Your task to perform on an android device: When is my next meeting? Image 0: 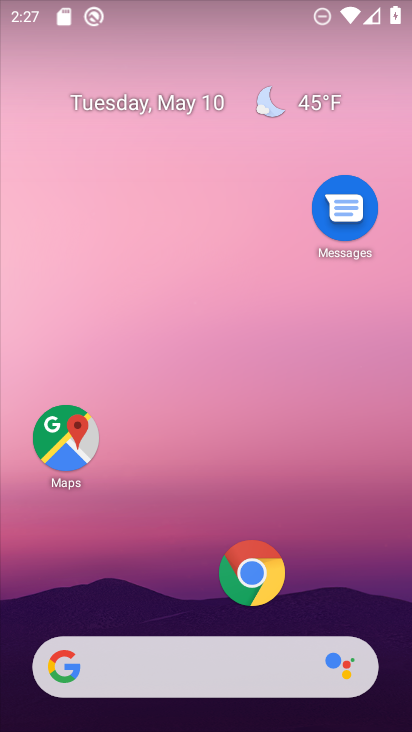
Step 0: drag from (210, 625) to (212, 314)
Your task to perform on an android device: When is my next meeting? Image 1: 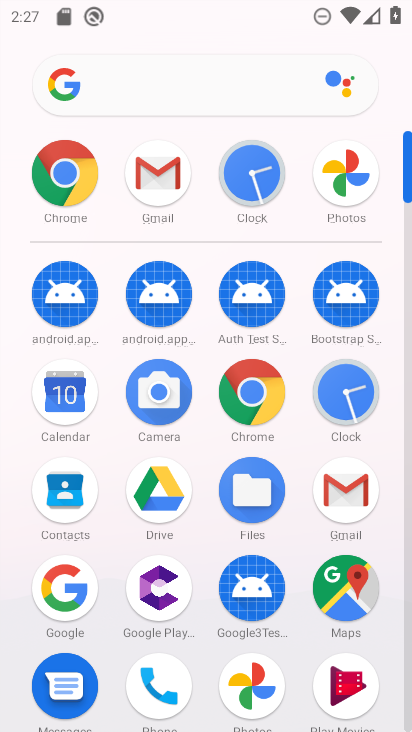
Step 1: click (67, 389)
Your task to perform on an android device: When is my next meeting? Image 2: 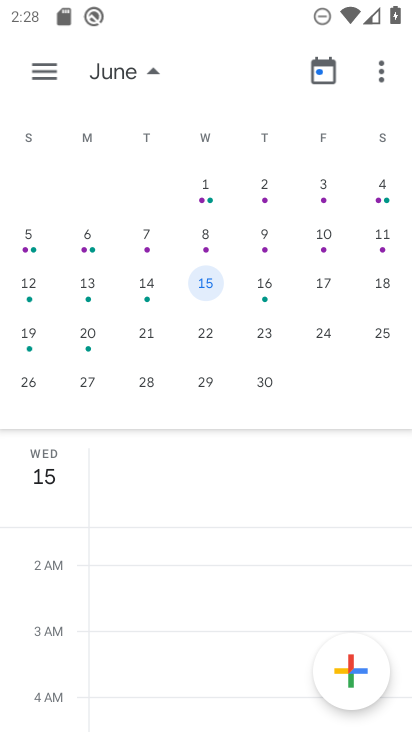
Step 2: click (197, 294)
Your task to perform on an android device: When is my next meeting? Image 3: 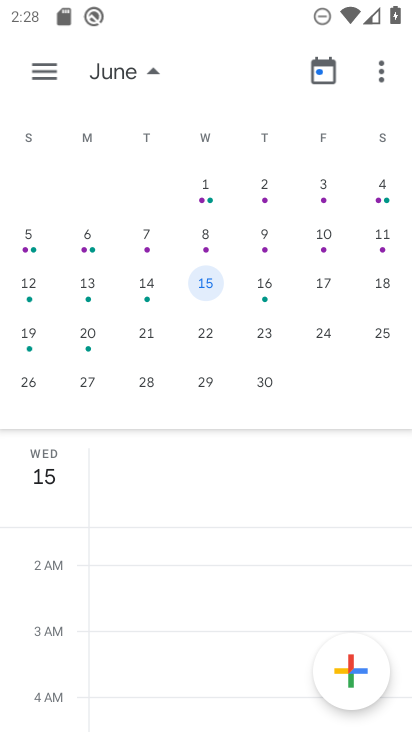
Step 3: drag from (28, 242) to (412, 316)
Your task to perform on an android device: When is my next meeting? Image 4: 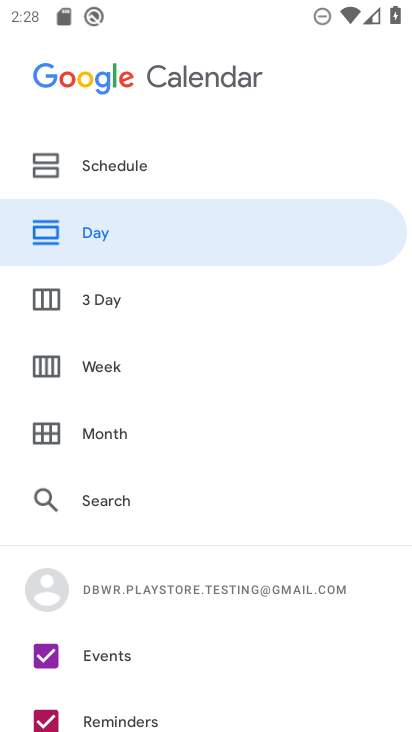
Step 4: press back button
Your task to perform on an android device: When is my next meeting? Image 5: 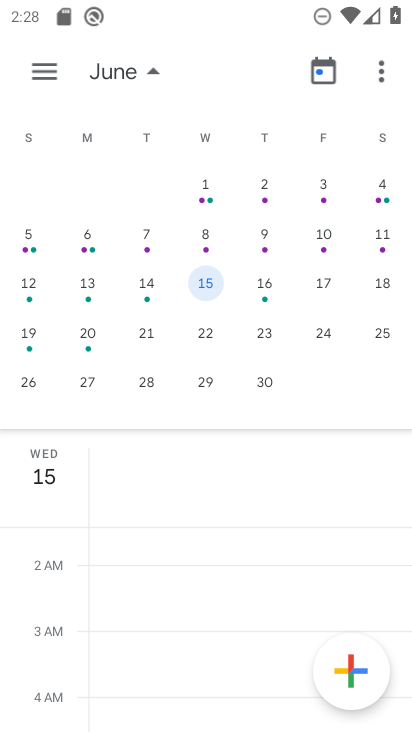
Step 5: drag from (65, 295) to (411, 277)
Your task to perform on an android device: When is my next meeting? Image 6: 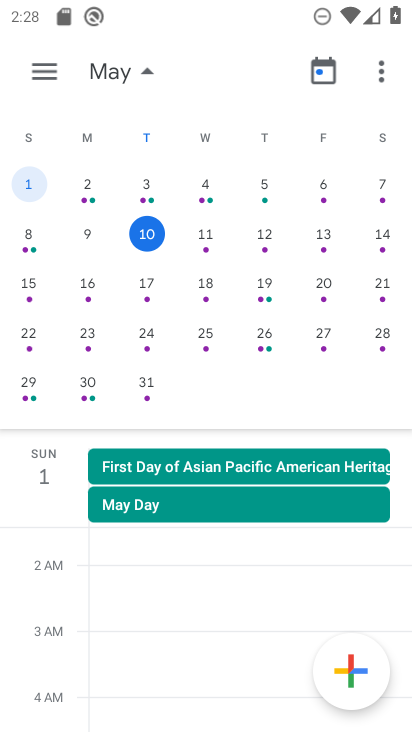
Step 6: click (157, 236)
Your task to perform on an android device: When is my next meeting? Image 7: 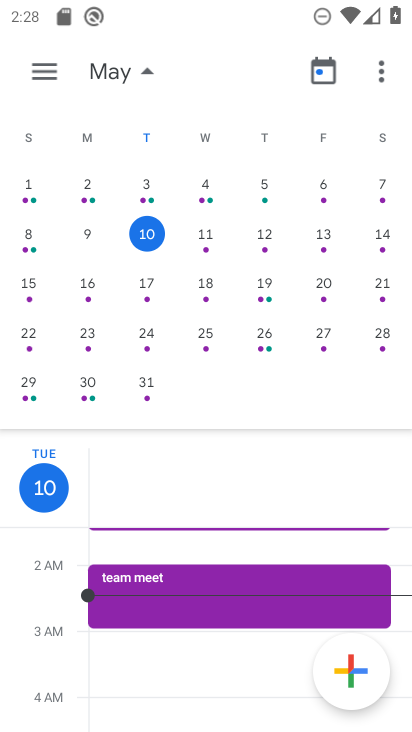
Step 7: drag from (208, 640) to (344, 327)
Your task to perform on an android device: When is my next meeting? Image 8: 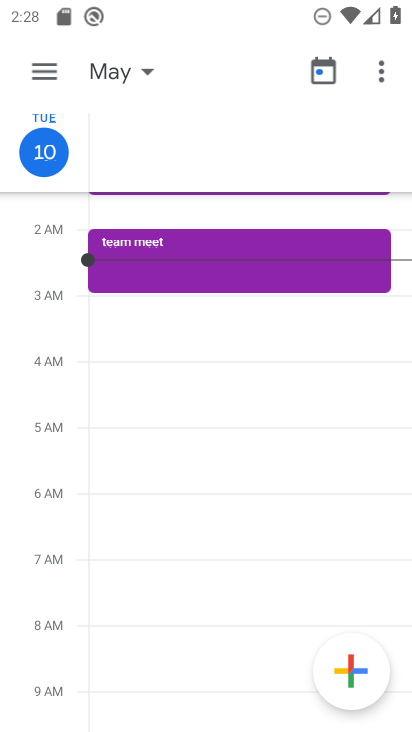
Step 8: drag from (158, 517) to (240, 323)
Your task to perform on an android device: When is my next meeting? Image 9: 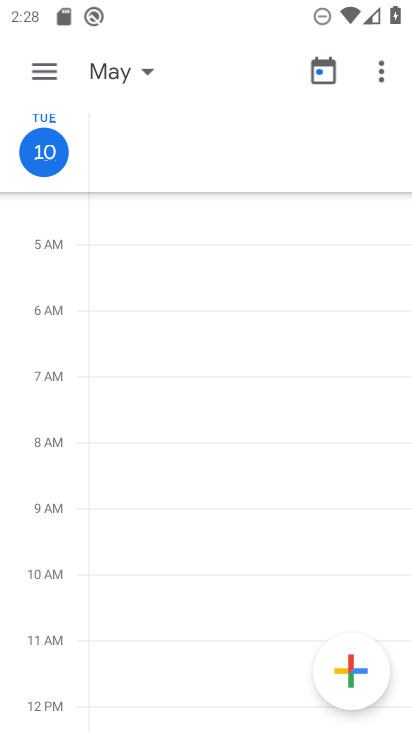
Step 9: drag from (243, 291) to (215, 627)
Your task to perform on an android device: When is my next meeting? Image 10: 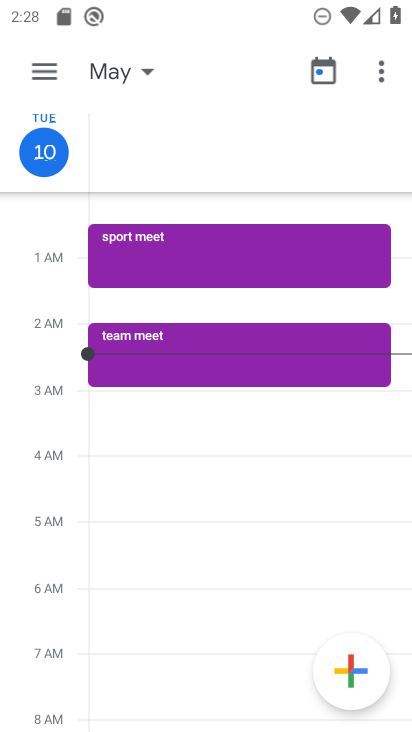
Step 10: drag from (262, 377) to (285, 589)
Your task to perform on an android device: When is my next meeting? Image 11: 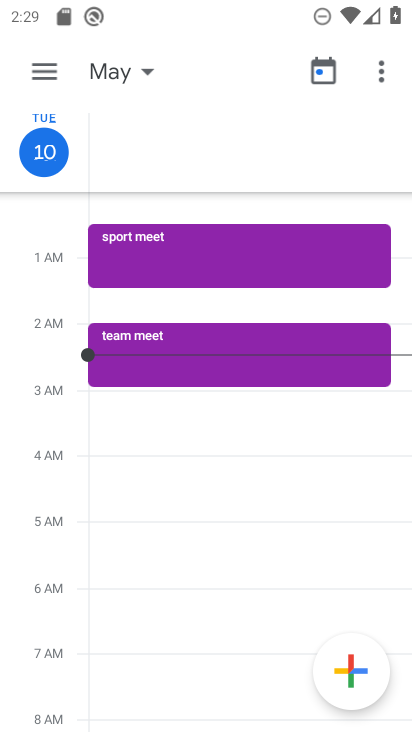
Step 11: drag from (249, 655) to (275, 492)
Your task to perform on an android device: When is my next meeting? Image 12: 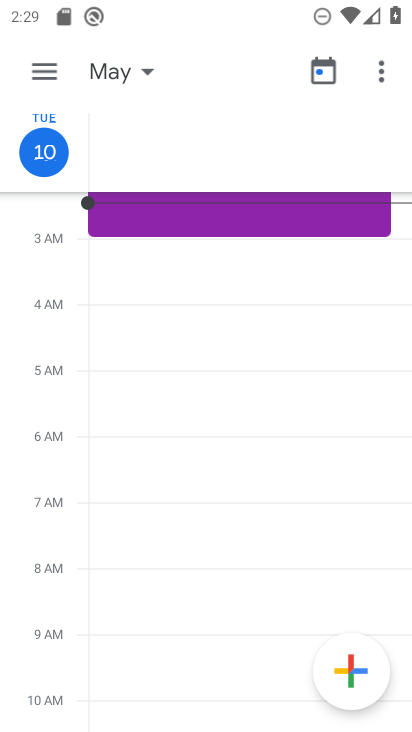
Step 12: drag from (257, 429) to (243, 674)
Your task to perform on an android device: When is my next meeting? Image 13: 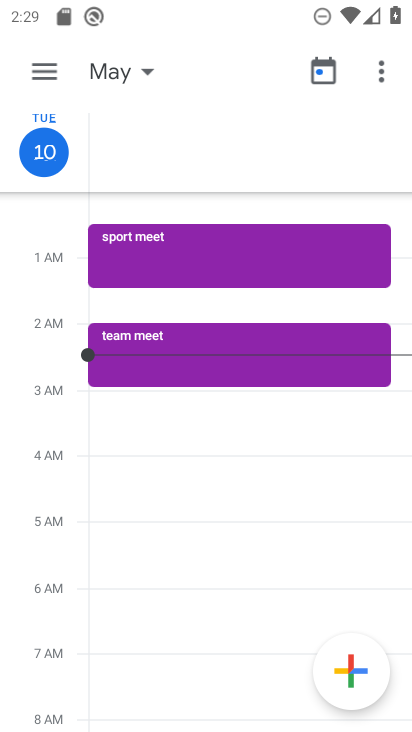
Step 13: drag from (235, 260) to (243, 475)
Your task to perform on an android device: When is my next meeting? Image 14: 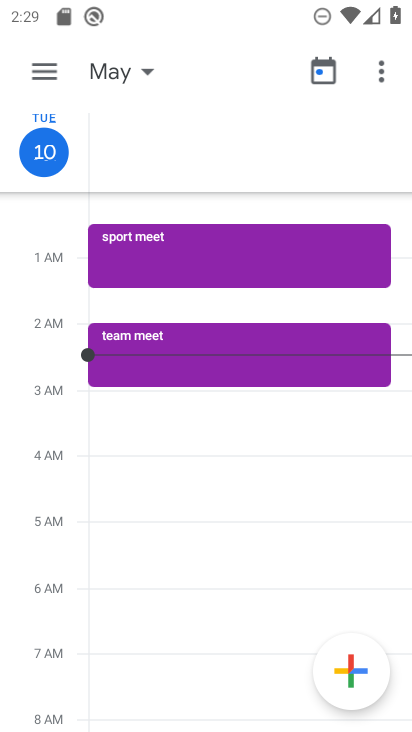
Step 14: click (219, 340)
Your task to perform on an android device: When is my next meeting? Image 15: 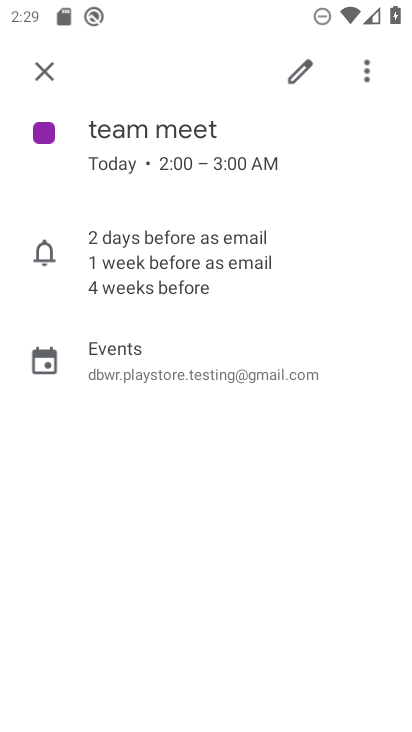
Step 15: task complete